Your task to perform on an android device: What's the weather going to be this weekend? Image 0: 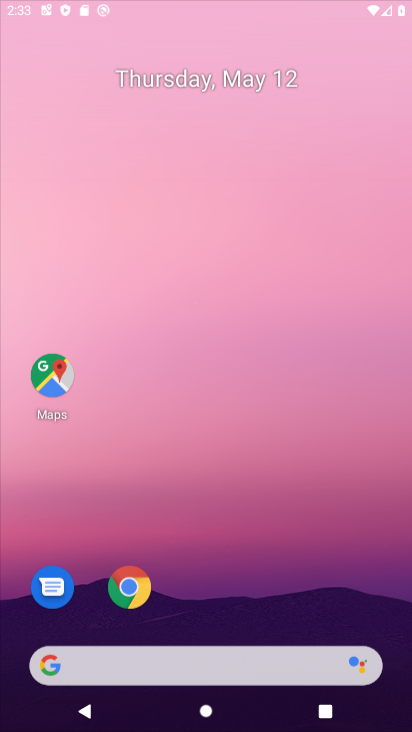
Step 0: press home button
Your task to perform on an android device: What's the weather going to be this weekend? Image 1: 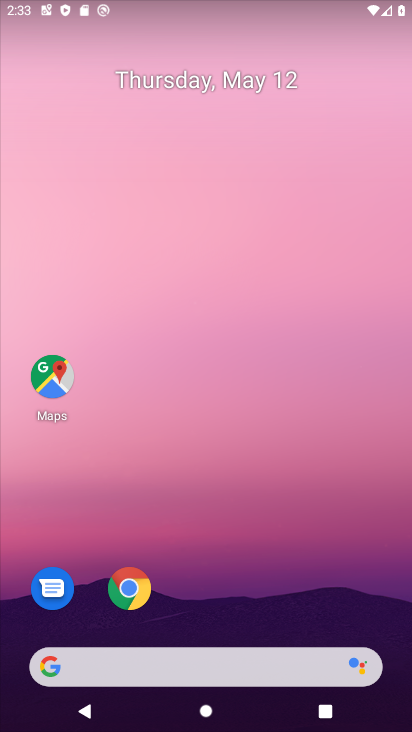
Step 1: click (59, 669)
Your task to perform on an android device: What's the weather going to be this weekend? Image 2: 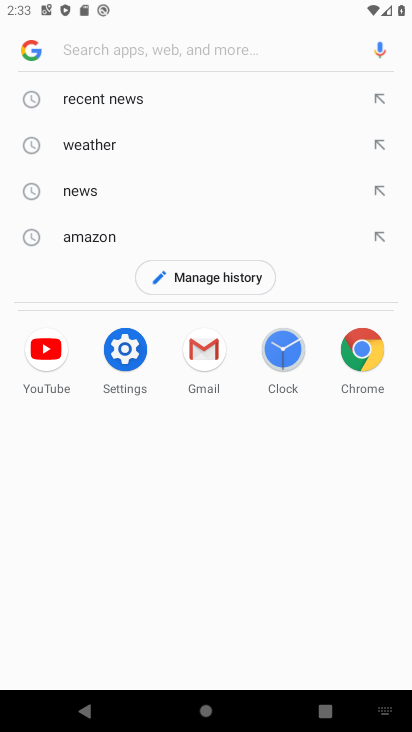
Step 2: click (43, 63)
Your task to perform on an android device: What's the weather going to be this weekend? Image 3: 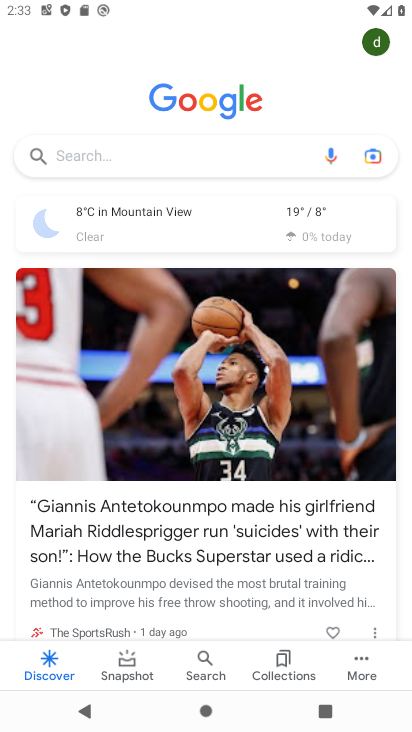
Step 3: click (113, 220)
Your task to perform on an android device: What's the weather going to be this weekend? Image 4: 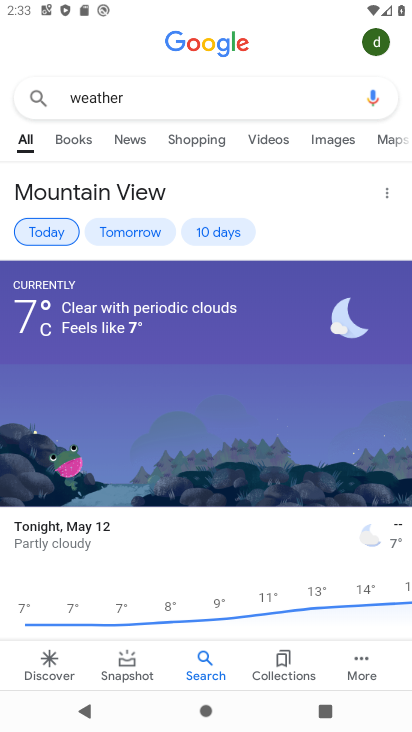
Step 4: task complete